Your task to perform on an android device: Open the calendar app, open the side menu, and click the "Day" option Image 0: 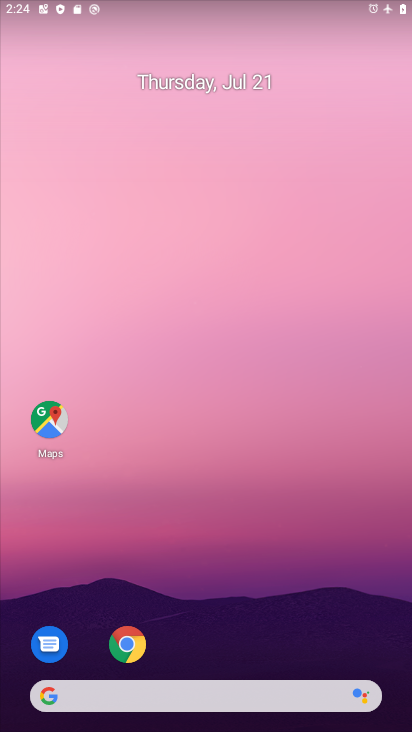
Step 0: drag from (281, 6) to (348, 434)
Your task to perform on an android device: Open the calendar app, open the side menu, and click the "Day" option Image 1: 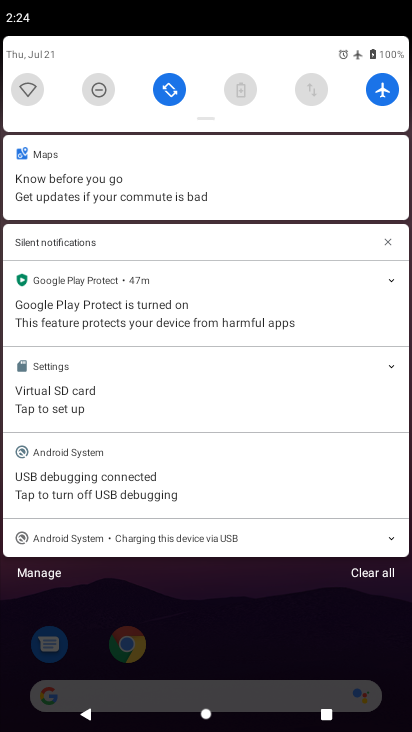
Step 1: click (385, 86)
Your task to perform on an android device: Open the calendar app, open the side menu, and click the "Day" option Image 2: 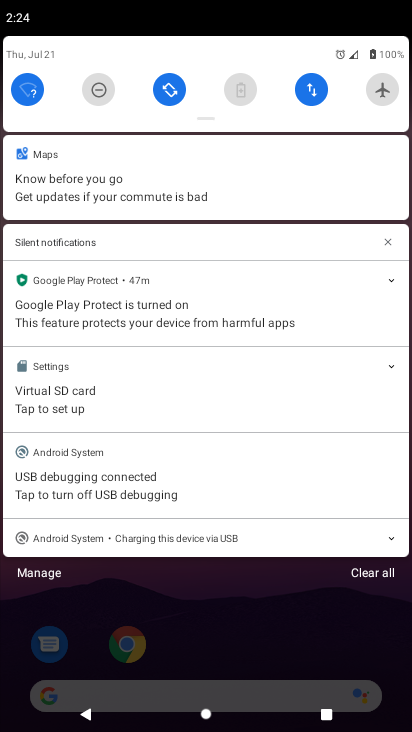
Step 2: drag from (212, 563) to (192, 173)
Your task to perform on an android device: Open the calendar app, open the side menu, and click the "Day" option Image 3: 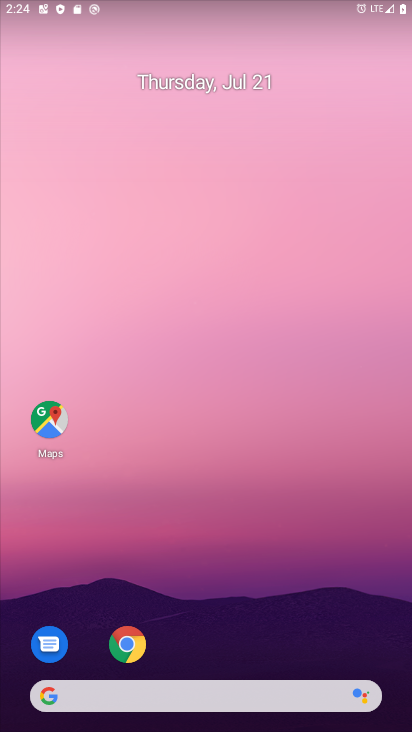
Step 3: drag from (215, 649) to (200, 216)
Your task to perform on an android device: Open the calendar app, open the side menu, and click the "Day" option Image 4: 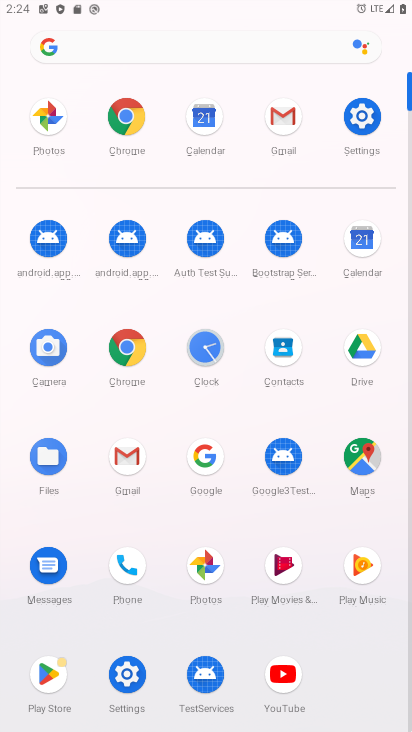
Step 4: click (196, 124)
Your task to perform on an android device: Open the calendar app, open the side menu, and click the "Day" option Image 5: 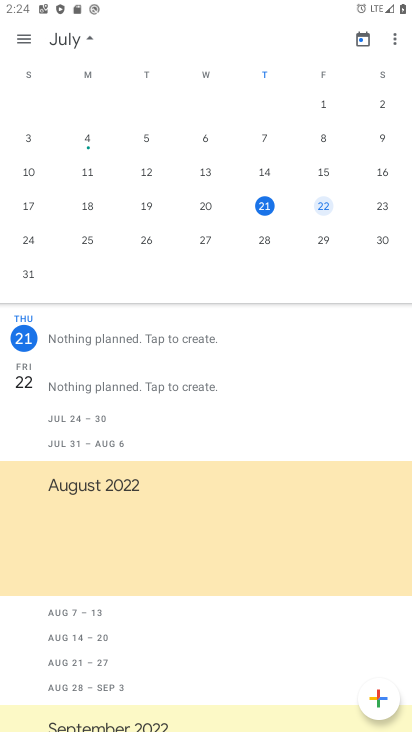
Step 5: click (18, 39)
Your task to perform on an android device: Open the calendar app, open the side menu, and click the "Day" option Image 6: 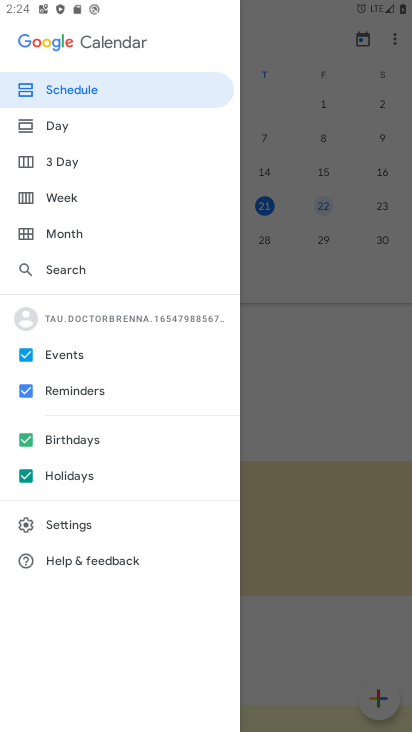
Step 6: click (54, 130)
Your task to perform on an android device: Open the calendar app, open the side menu, and click the "Day" option Image 7: 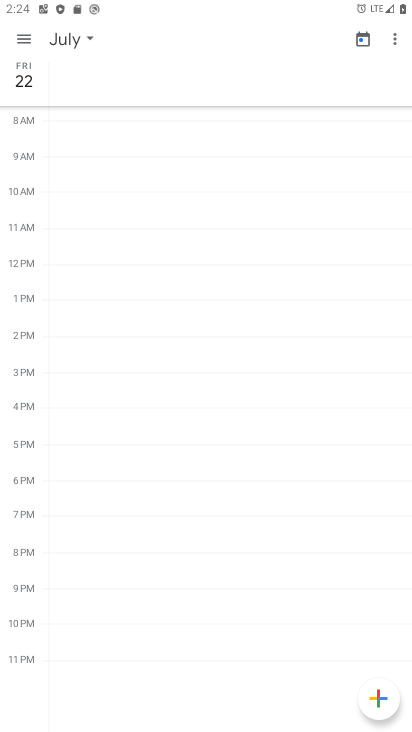
Step 7: task complete